Your task to perform on an android device: Open internet settings Image 0: 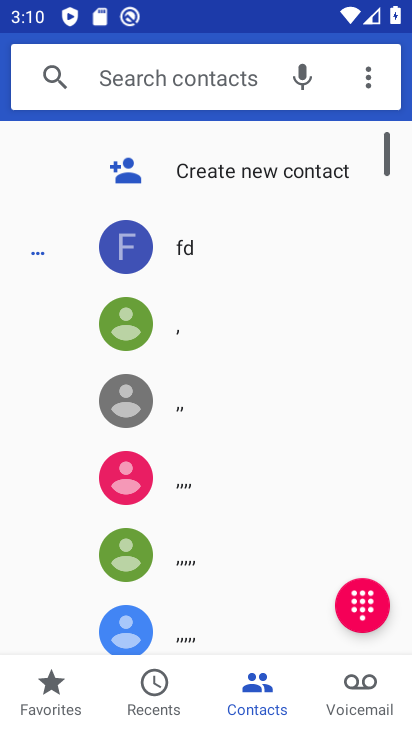
Step 0: press home button
Your task to perform on an android device: Open internet settings Image 1: 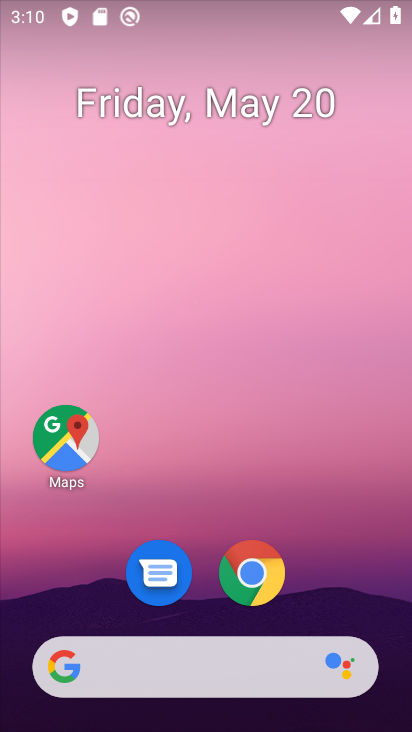
Step 1: drag from (177, 635) to (183, 8)
Your task to perform on an android device: Open internet settings Image 2: 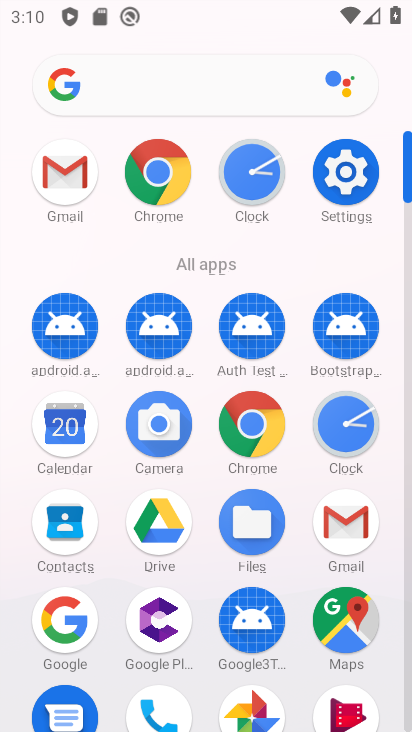
Step 2: click (341, 187)
Your task to perform on an android device: Open internet settings Image 3: 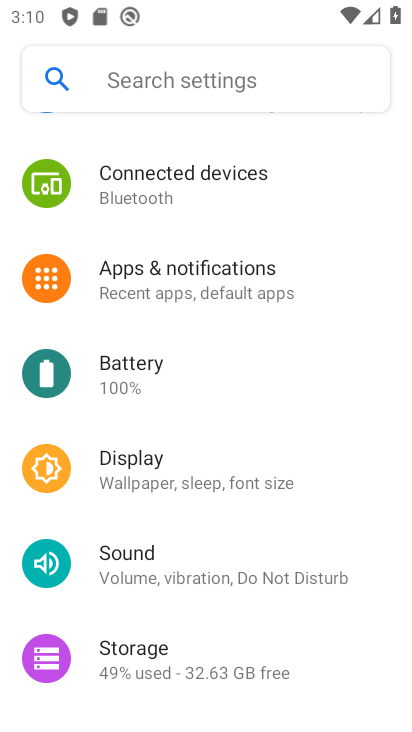
Step 3: drag from (183, 170) to (175, 510)
Your task to perform on an android device: Open internet settings Image 4: 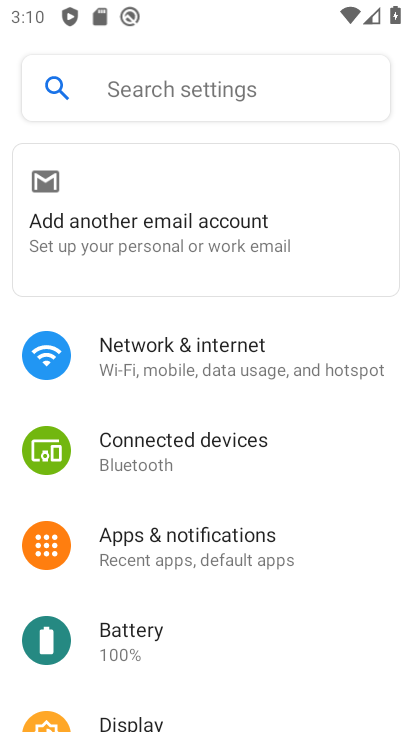
Step 4: click (190, 344)
Your task to perform on an android device: Open internet settings Image 5: 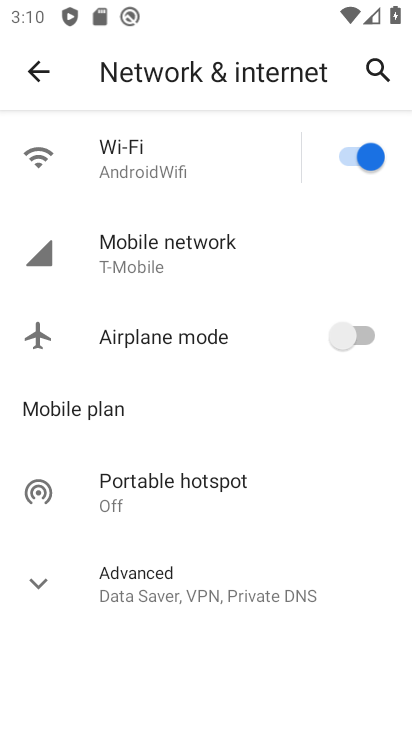
Step 5: click (155, 266)
Your task to perform on an android device: Open internet settings Image 6: 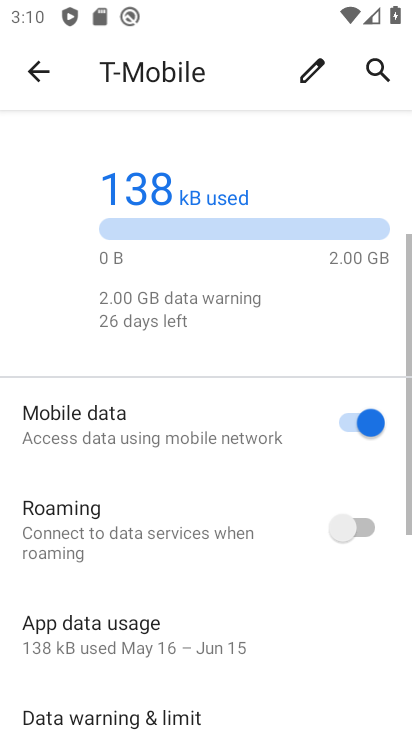
Step 6: task complete